Your task to perform on an android device: change timer sound Image 0: 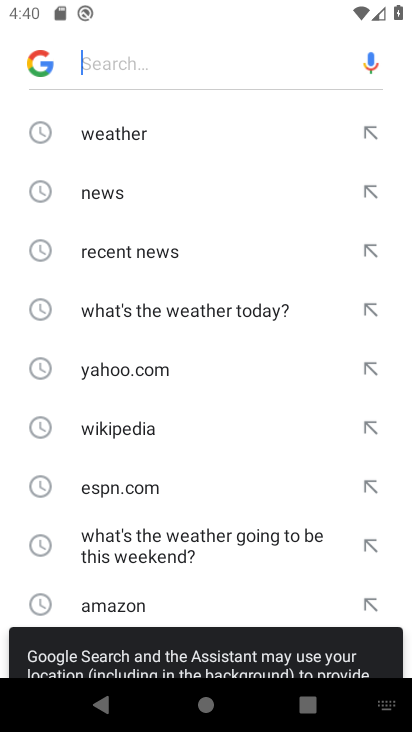
Step 0: press back button
Your task to perform on an android device: change timer sound Image 1: 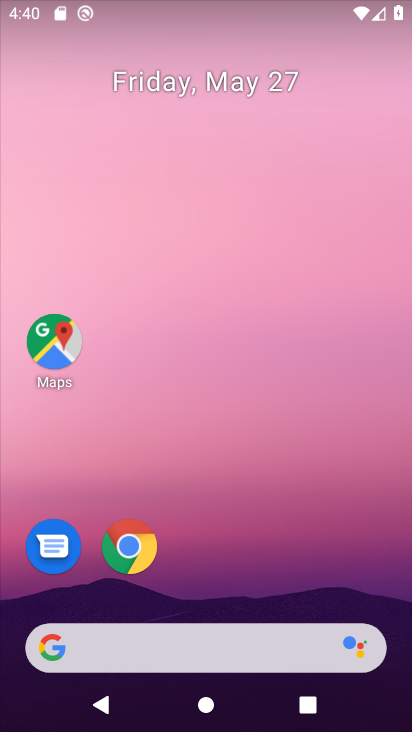
Step 1: drag from (274, 507) to (247, 46)
Your task to perform on an android device: change timer sound Image 2: 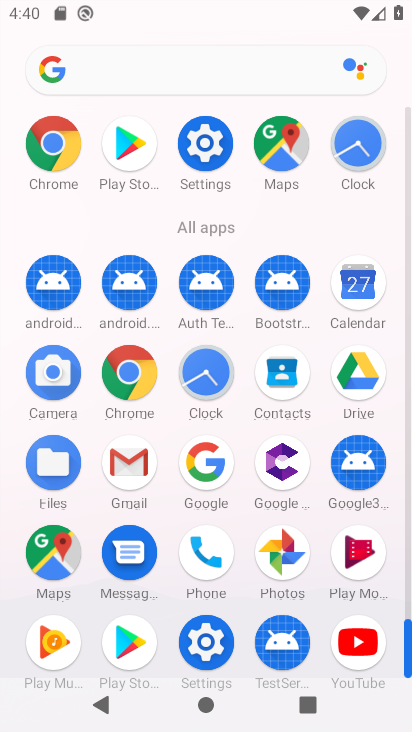
Step 2: drag from (8, 560) to (17, 267)
Your task to perform on an android device: change timer sound Image 3: 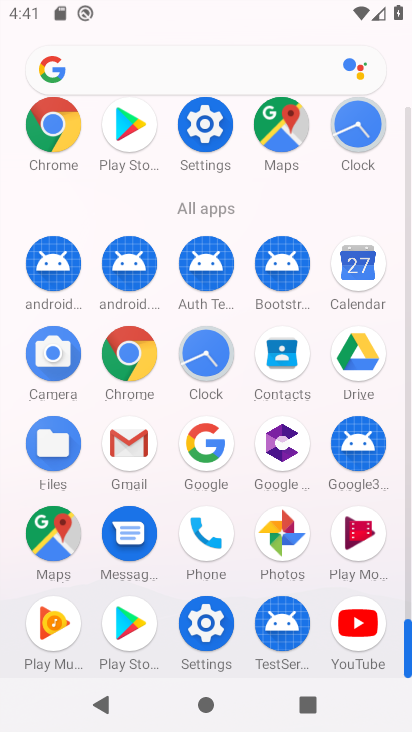
Step 3: click (358, 120)
Your task to perform on an android device: change timer sound Image 4: 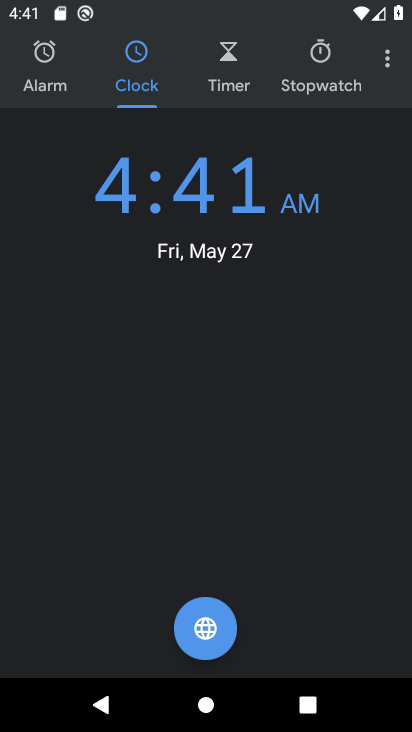
Step 4: drag from (387, 61) to (286, 123)
Your task to perform on an android device: change timer sound Image 5: 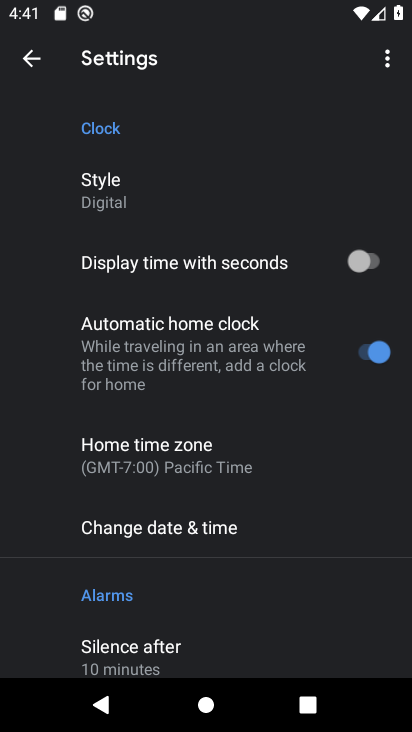
Step 5: drag from (215, 471) to (227, 151)
Your task to perform on an android device: change timer sound Image 6: 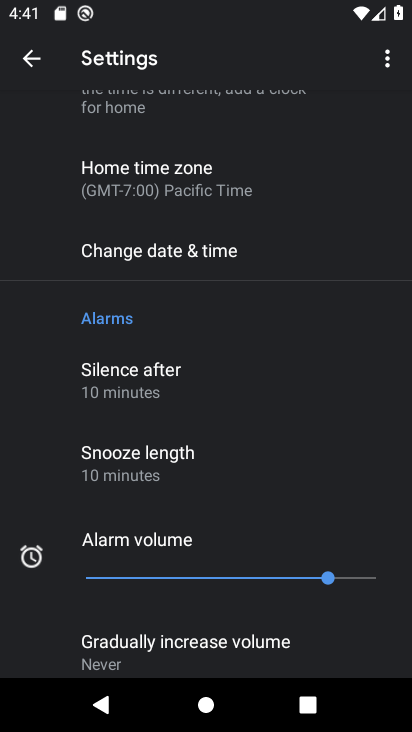
Step 6: click (216, 254)
Your task to perform on an android device: change timer sound Image 7: 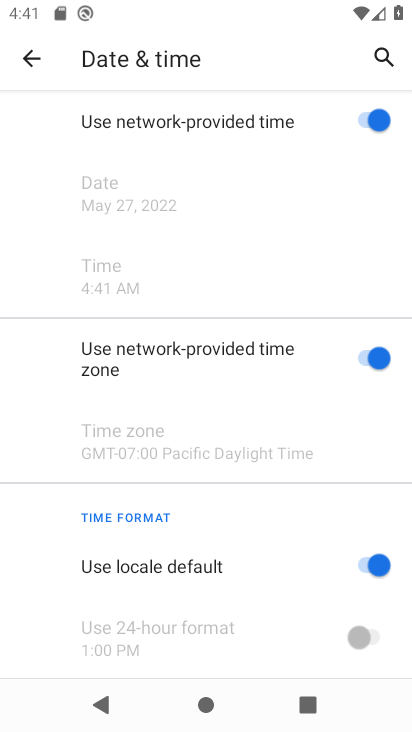
Step 7: drag from (258, 593) to (259, 191)
Your task to perform on an android device: change timer sound Image 8: 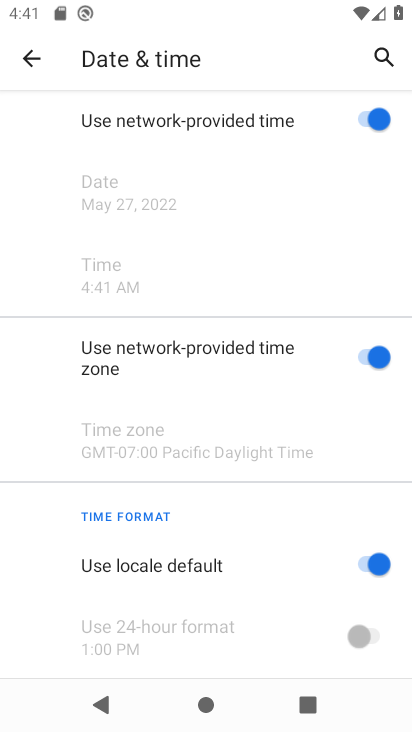
Step 8: drag from (264, 206) to (272, 637)
Your task to perform on an android device: change timer sound Image 9: 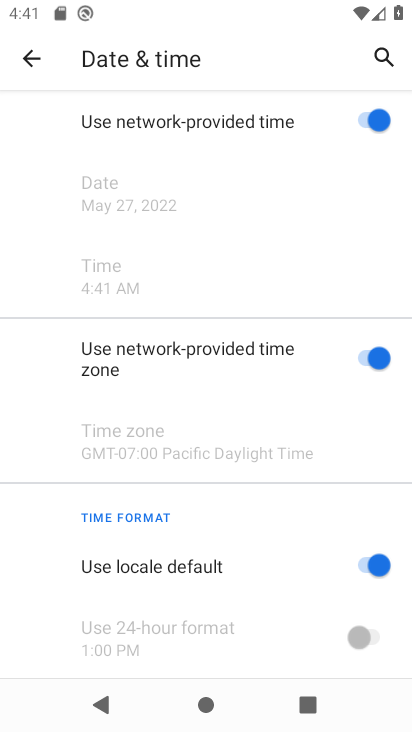
Step 9: click (28, 52)
Your task to perform on an android device: change timer sound Image 10: 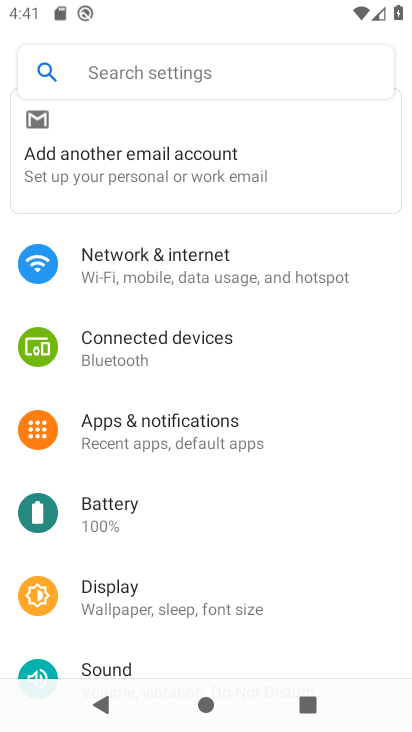
Step 10: press back button
Your task to perform on an android device: change timer sound Image 11: 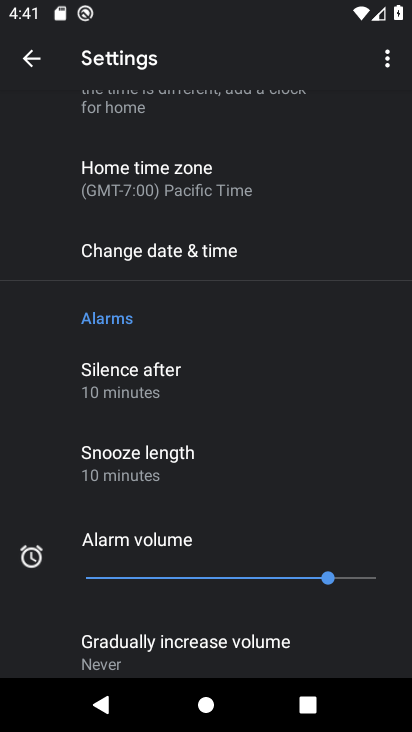
Step 11: drag from (274, 456) to (293, 142)
Your task to perform on an android device: change timer sound Image 12: 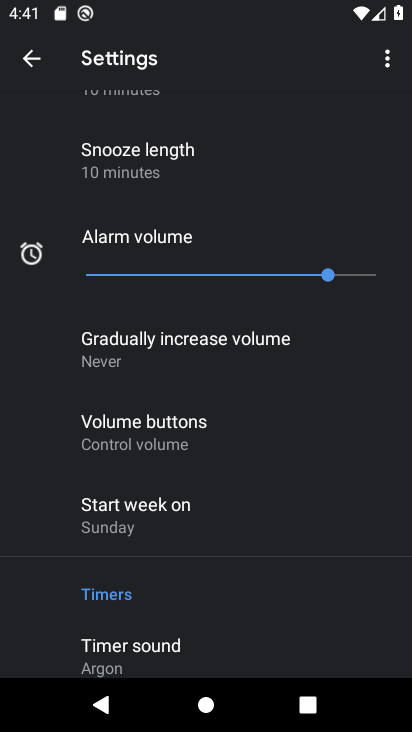
Step 12: drag from (272, 582) to (297, 258)
Your task to perform on an android device: change timer sound Image 13: 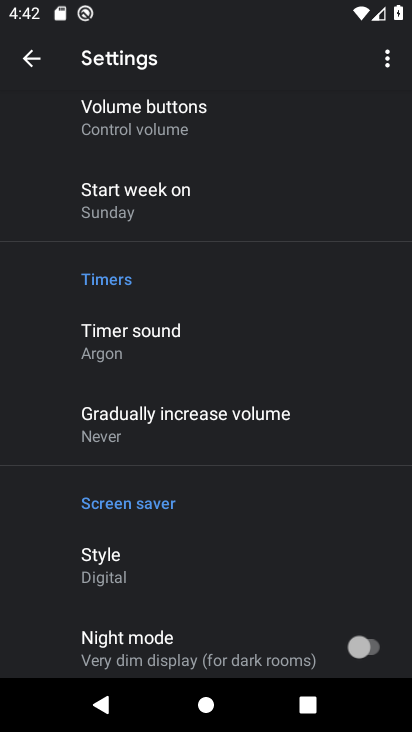
Step 13: click (177, 330)
Your task to perform on an android device: change timer sound Image 14: 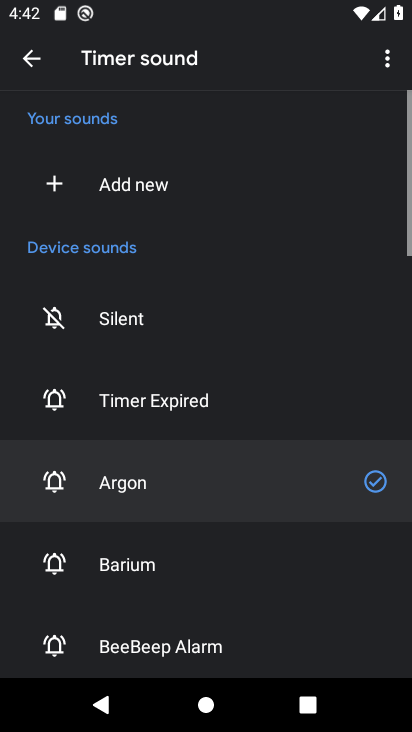
Step 14: click (186, 635)
Your task to perform on an android device: change timer sound Image 15: 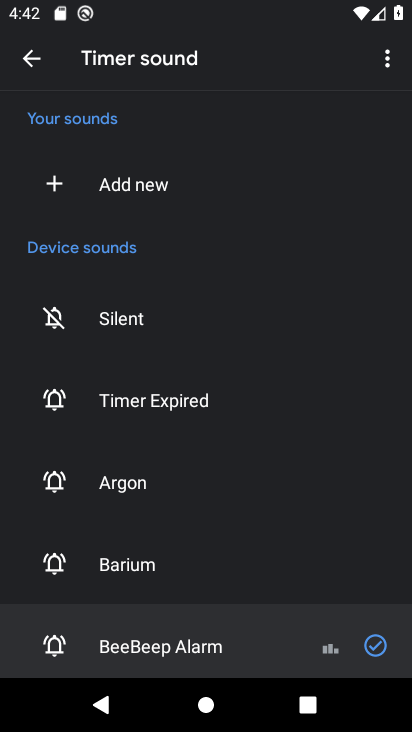
Step 15: task complete